Your task to perform on an android device: Open maps Image 0: 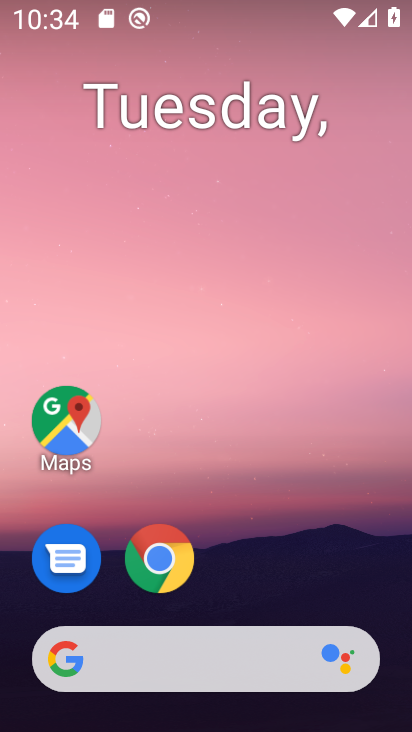
Step 0: drag from (345, 560) to (362, 103)
Your task to perform on an android device: Open maps Image 1: 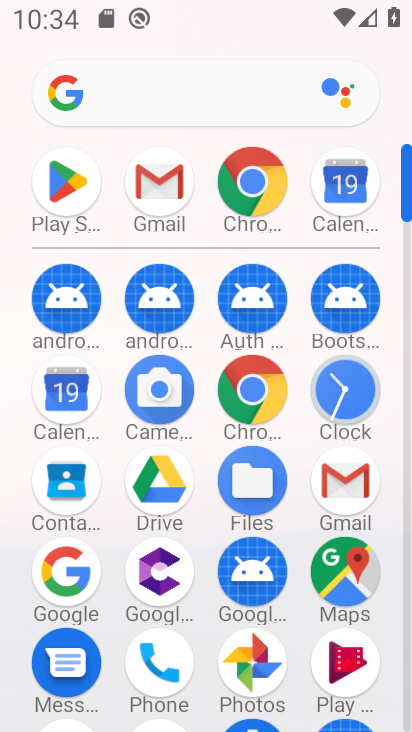
Step 1: click (354, 572)
Your task to perform on an android device: Open maps Image 2: 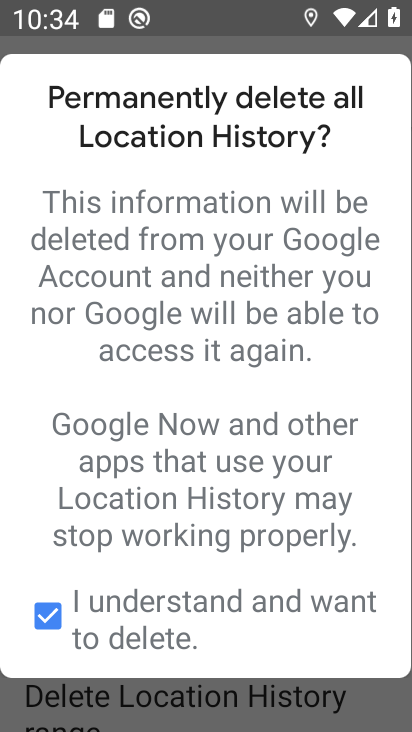
Step 2: task complete